Your task to perform on an android device: turn on bluetooth scan Image 0: 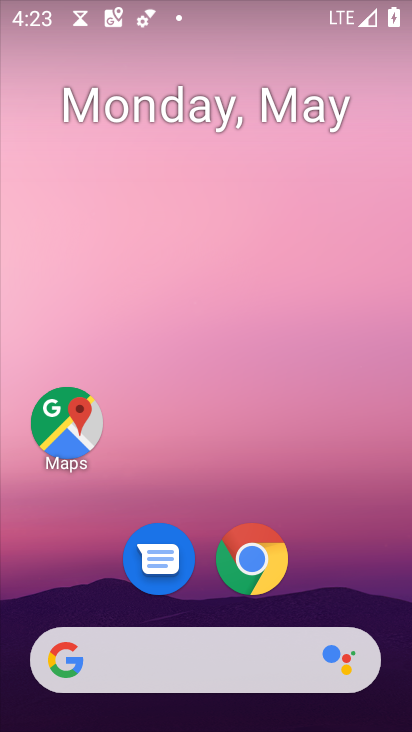
Step 0: drag from (296, 570) to (247, 240)
Your task to perform on an android device: turn on bluetooth scan Image 1: 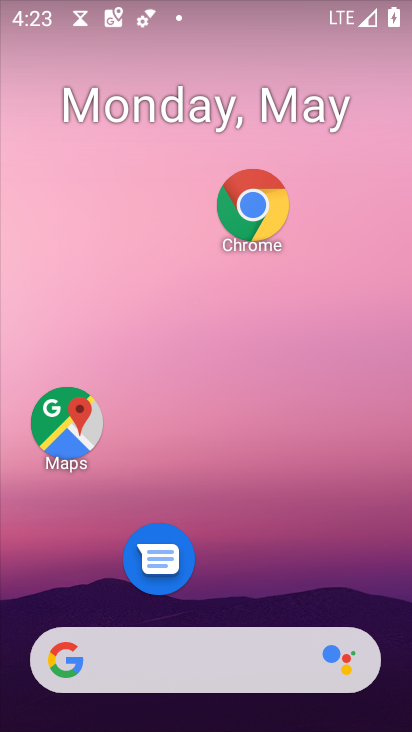
Step 1: drag from (258, 605) to (203, 178)
Your task to perform on an android device: turn on bluetooth scan Image 2: 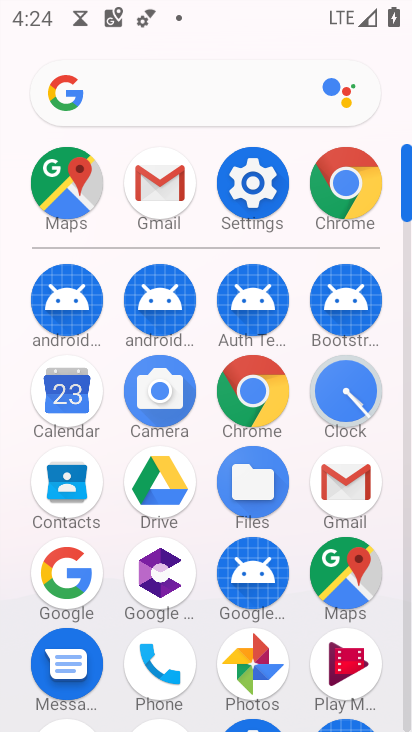
Step 2: click (255, 181)
Your task to perform on an android device: turn on bluetooth scan Image 3: 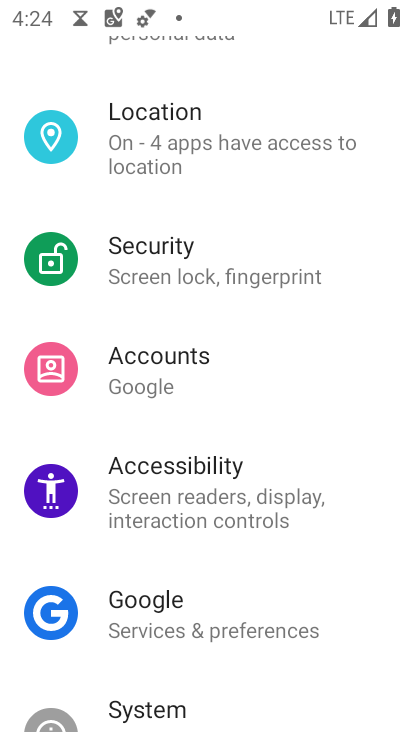
Step 3: drag from (240, 157) to (256, 393)
Your task to perform on an android device: turn on bluetooth scan Image 4: 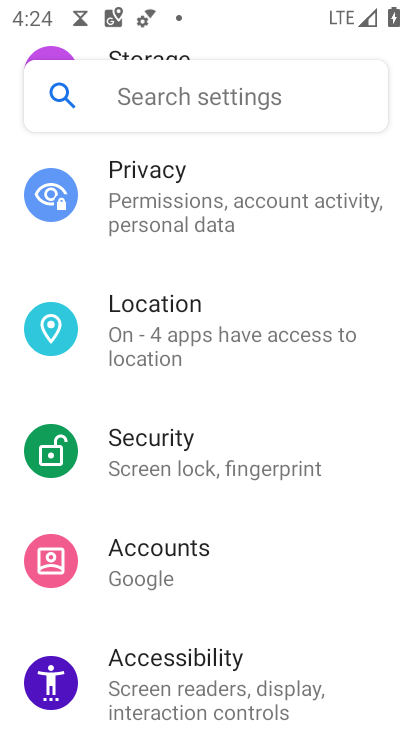
Step 4: drag from (250, 282) to (264, 715)
Your task to perform on an android device: turn on bluetooth scan Image 5: 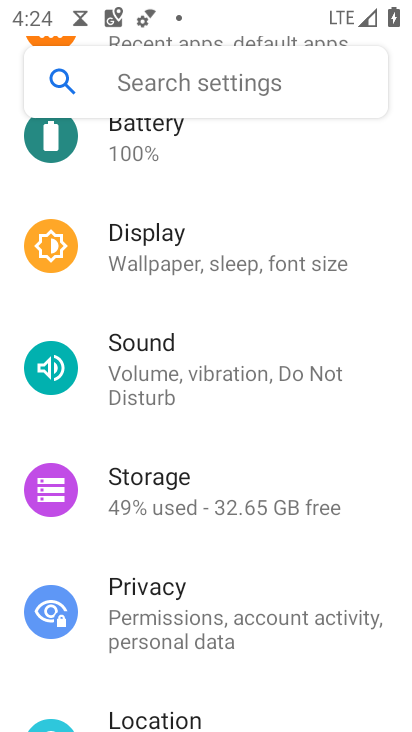
Step 5: drag from (209, 279) to (214, 642)
Your task to perform on an android device: turn on bluetooth scan Image 6: 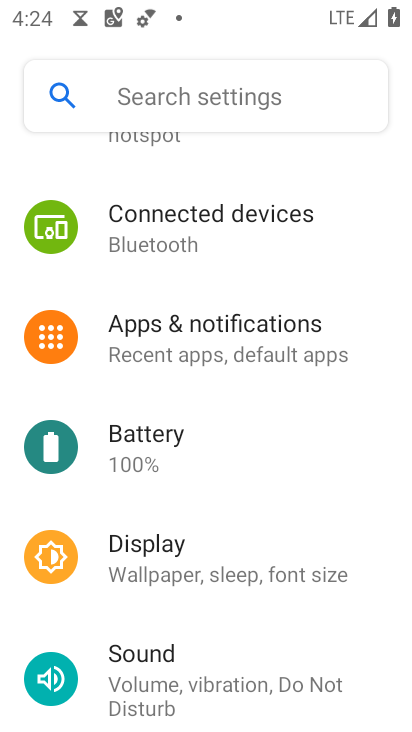
Step 6: drag from (217, 237) to (222, 596)
Your task to perform on an android device: turn on bluetooth scan Image 7: 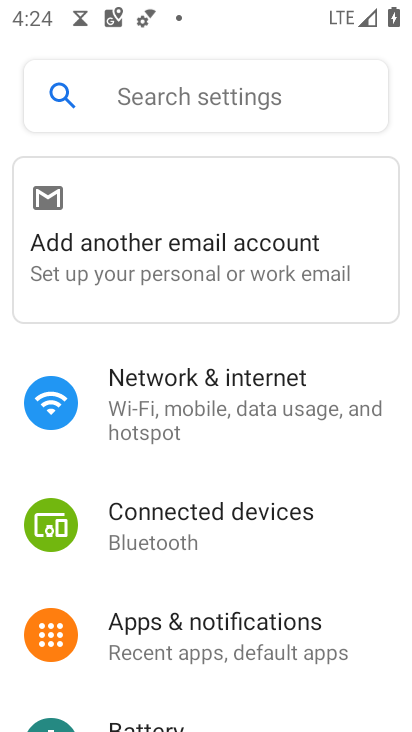
Step 7: drag from (207, 647) to (182, 478)
Your task to perform on an android device: turn on bluetooth scan Image 8: 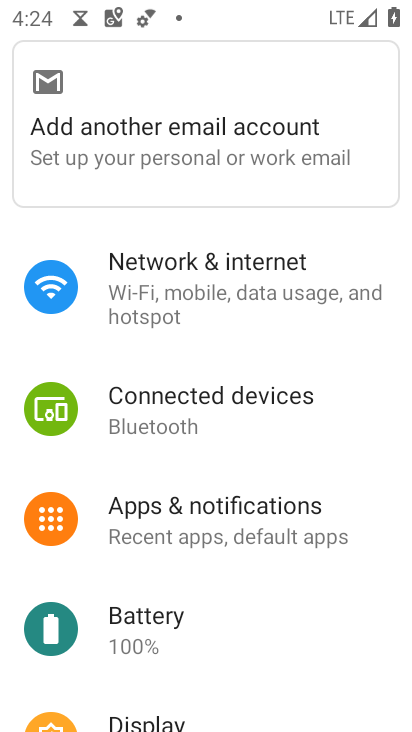
Step 8: drag from (196, 587) to (194, 338)
Your task to perform on an android device: turn on bluetooth scan Image 9: 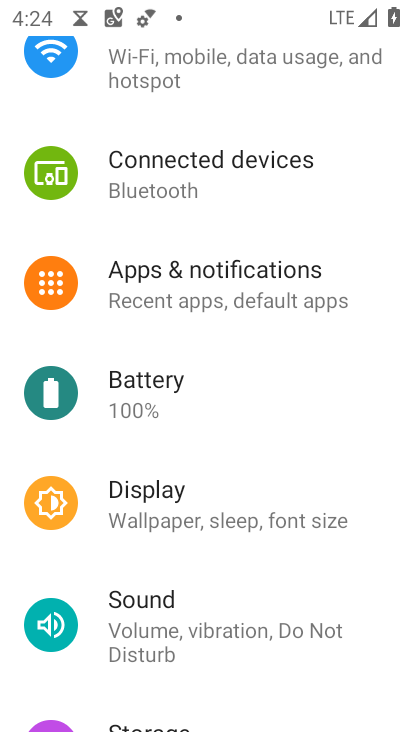
Step 9: drag from (175, 637) to (174, 416)
Your task to perform on an android device: turn on bluetooth scan Image 10: 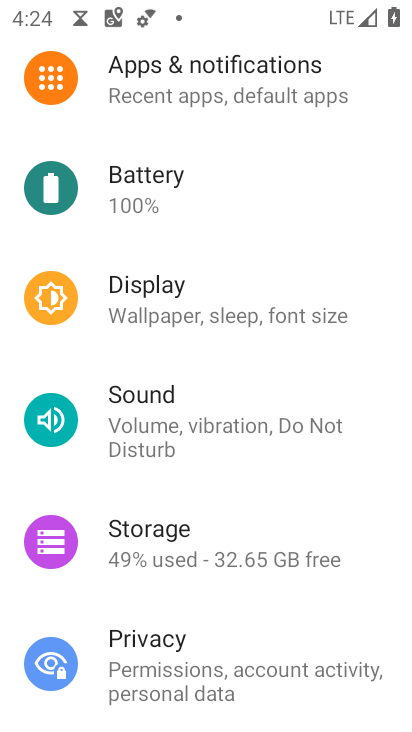
Step 10: drag from (193, 665) to (190, 430)
Your task to perform on an android device: turn on bluetooth scan Image 11: 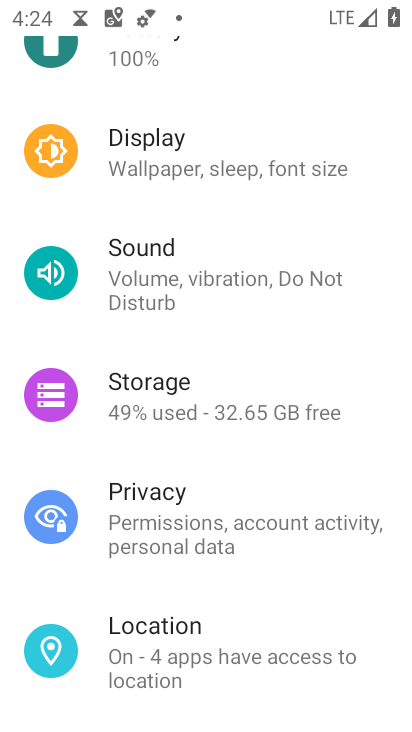
Step 11: click (201, 656)
Your task to perform on an android device: turn on bluetooth scan Image 12: 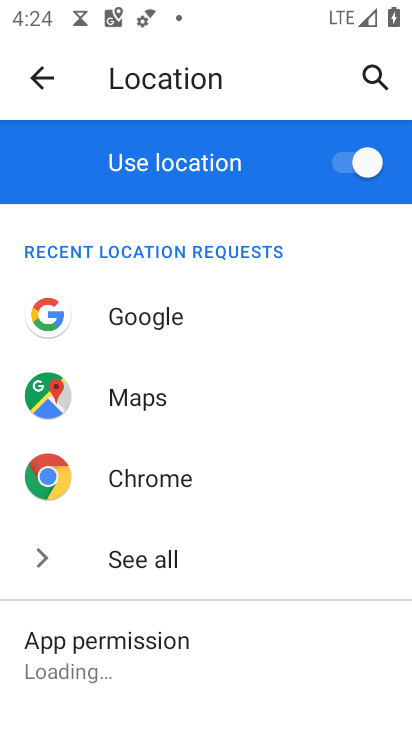
Step 12: drag from (160, 655) to (136, 378)
Your task to perform on an android device: turn on bluetooth scan Image 13: 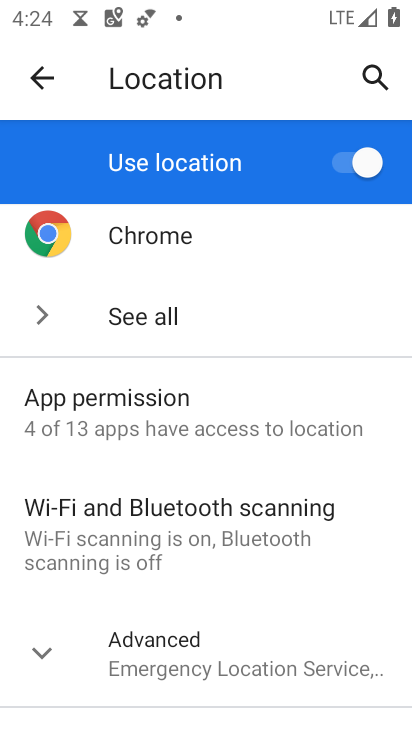
Step 13: click (124, 525)
Your task to perform on an android device: turn on bluetooth scan Image 14: 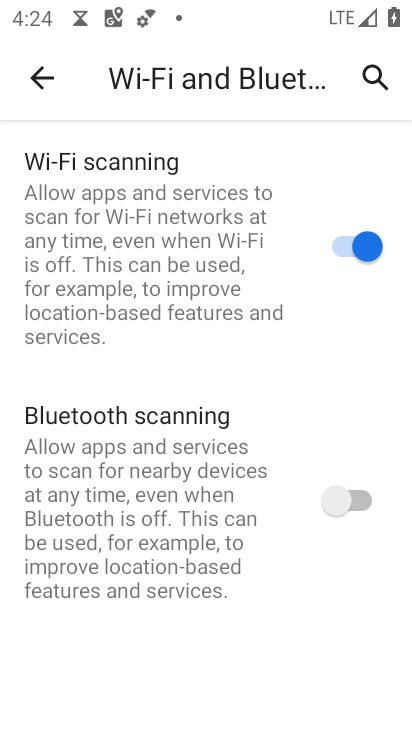
Step 14: click (362, 506)
Your task to perform on an android device: turn on bluetooth scan Image 15: 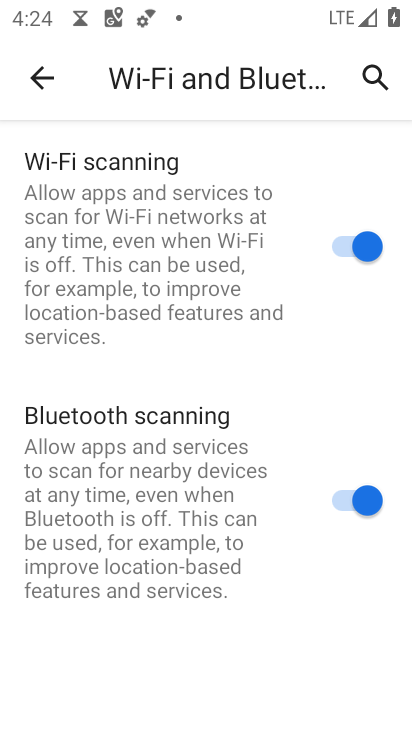
Step 15: task complete